Your task to perform on an android device: install app "Google Play Music" Image 0: 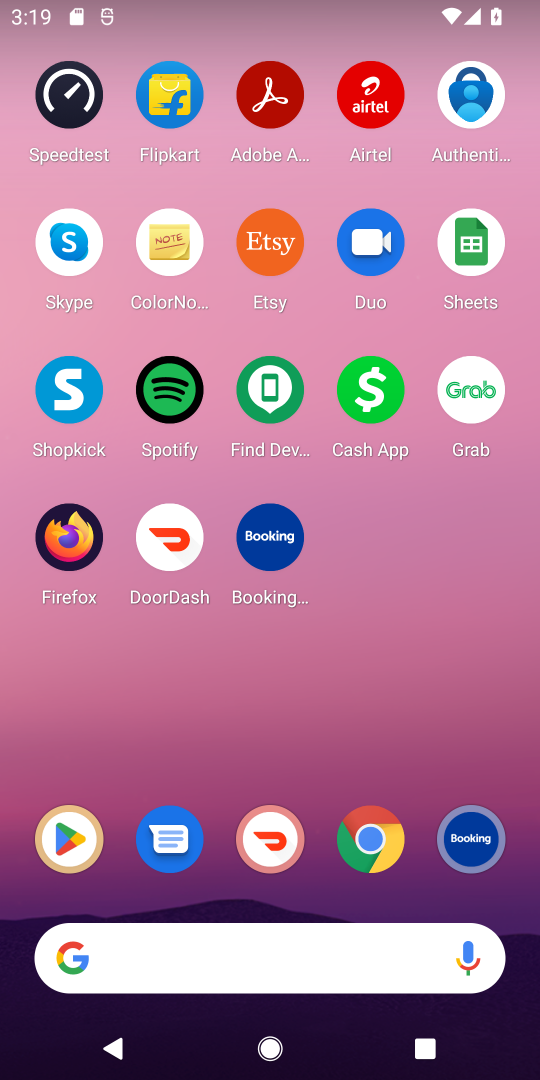
Step 0: drag from (318, 801) to (280, 387)
Your task to perform on an android device: install app "Google Play Music" Image 1: 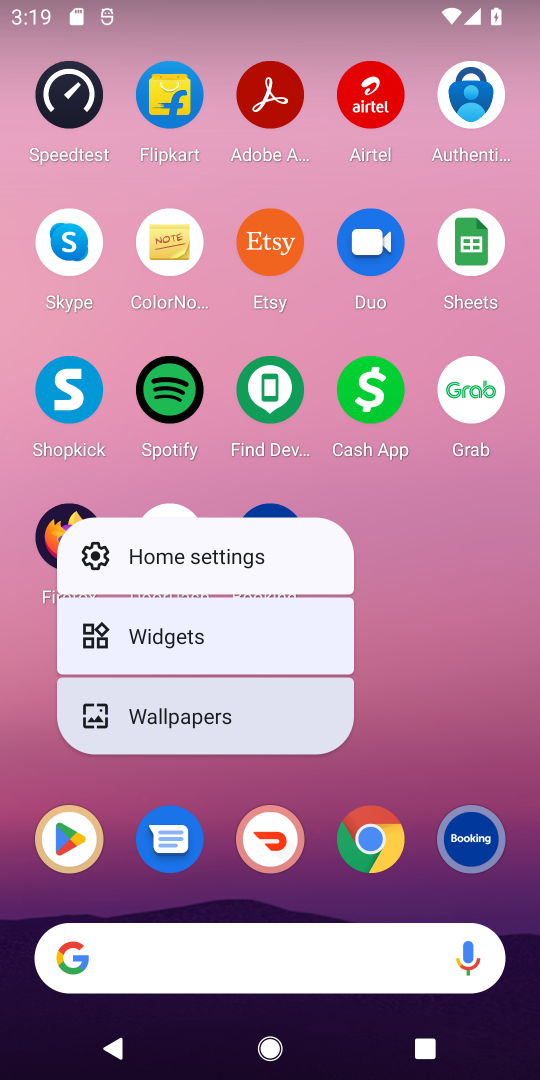
Step 1: click (420, 547)
Your task to perform on an android device: install app "Google Play Music" Image 2: 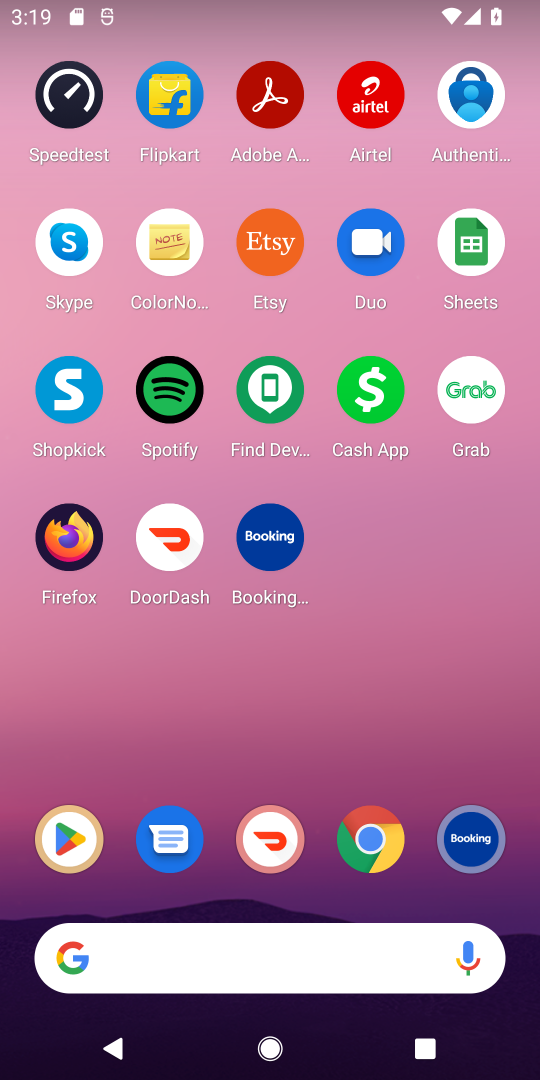
Step 2: drag from (224, 892) to (284, 153)
Your task to perform on an android device: install app "Google Play Music" Image 3: 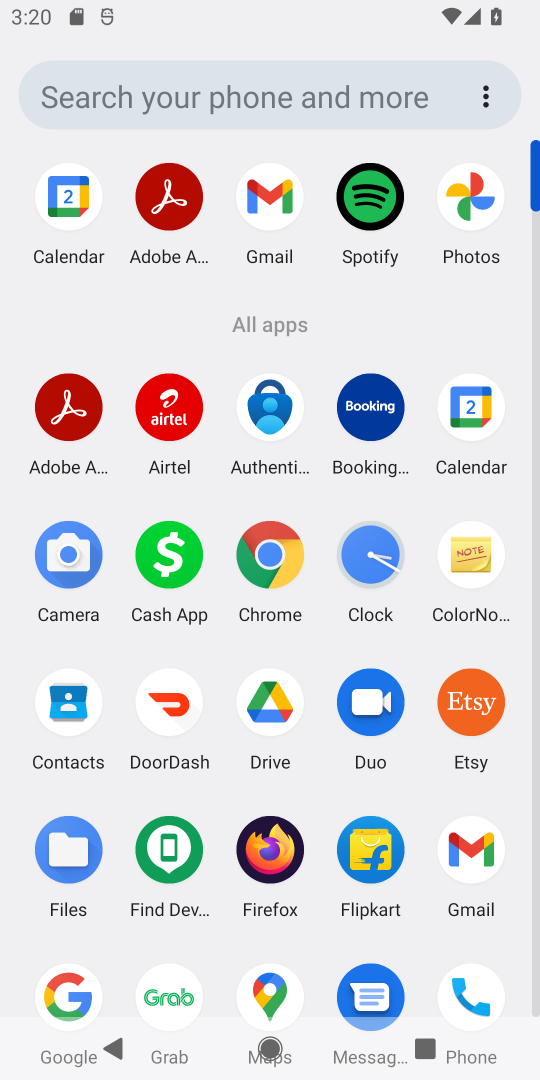
Step 3: click (136, 1037)
Your task to perform on an android device: install app "Google Play Music" Image 4: 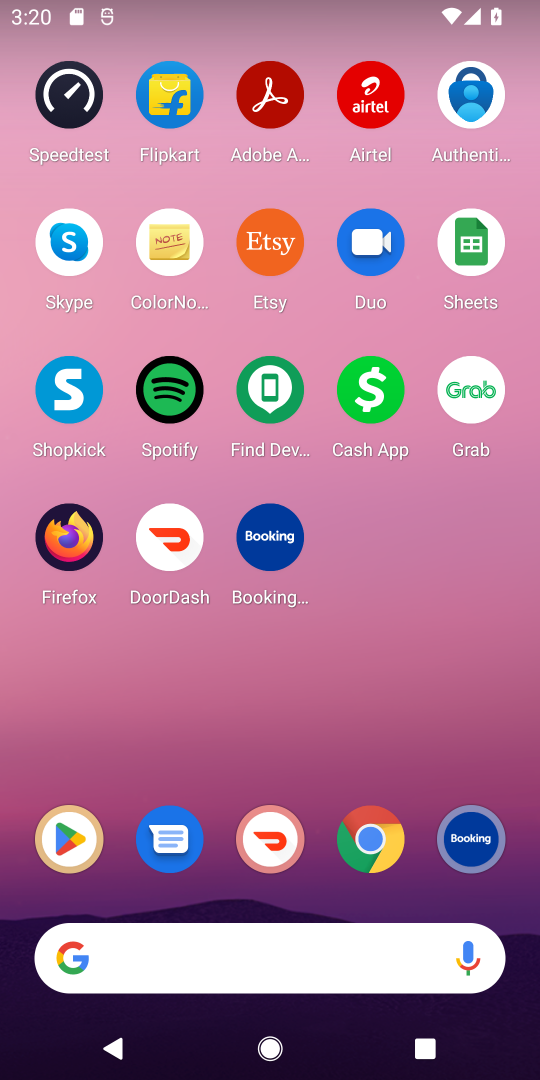
Step 4: click (68, 808)
Your task to perform on an android device: install app "Google Play Music" Image 5: 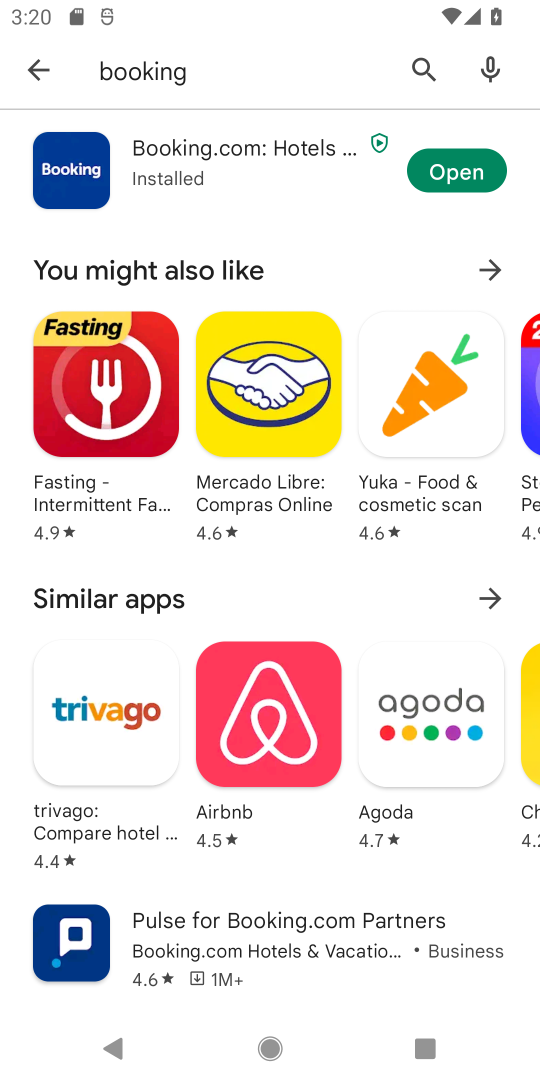
Step 5: click (438, 78)
Your task to perform on an android device: install app "Google Play Music" Image 6: 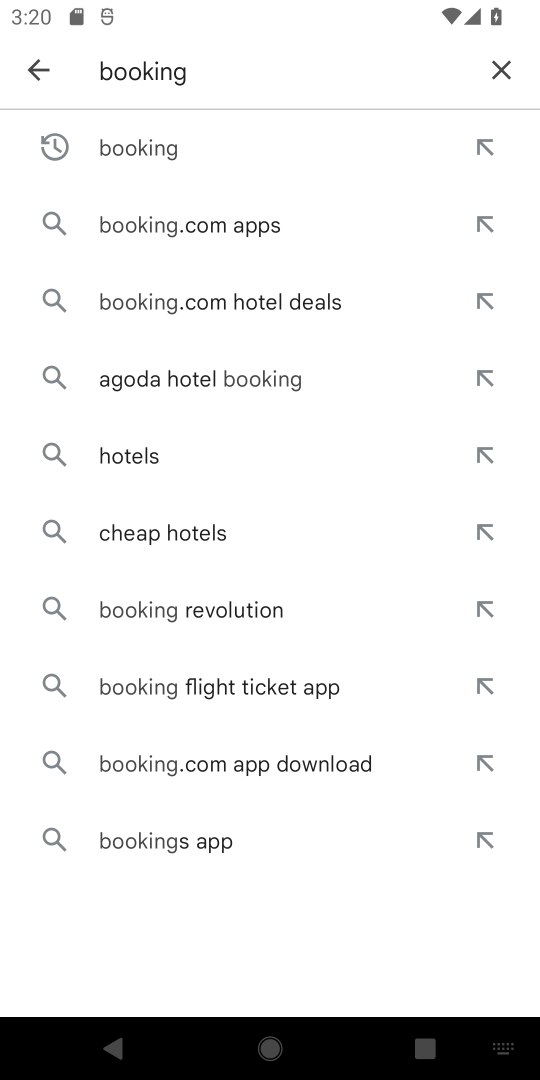
Step 6: click (498, 73)
Your task to perform on an android device: install app "Google Play Music" Image 7: 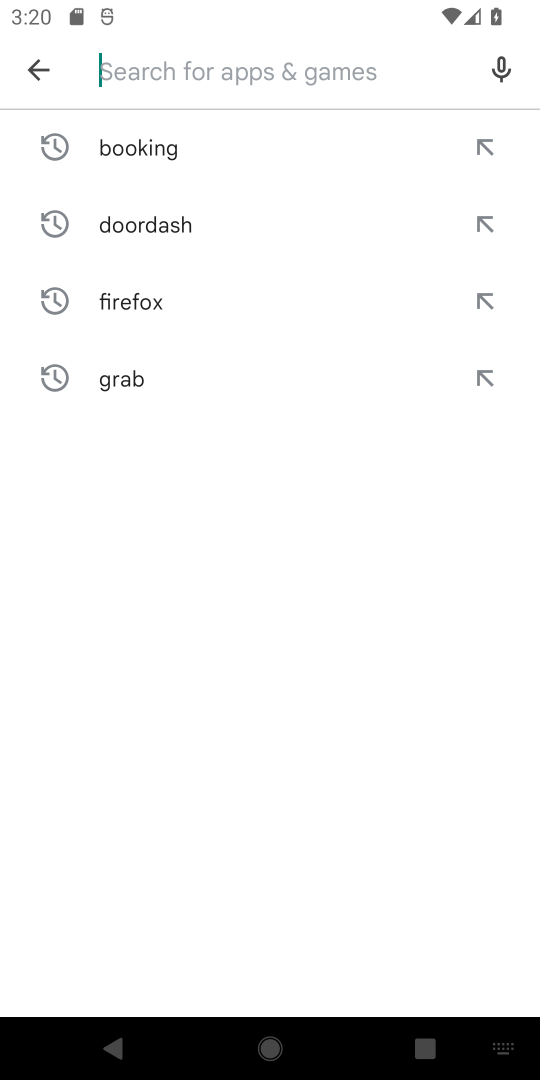
Step 7: type "google play music"
Your task to perform on an android device: install app "Google Play Music" Image 8: 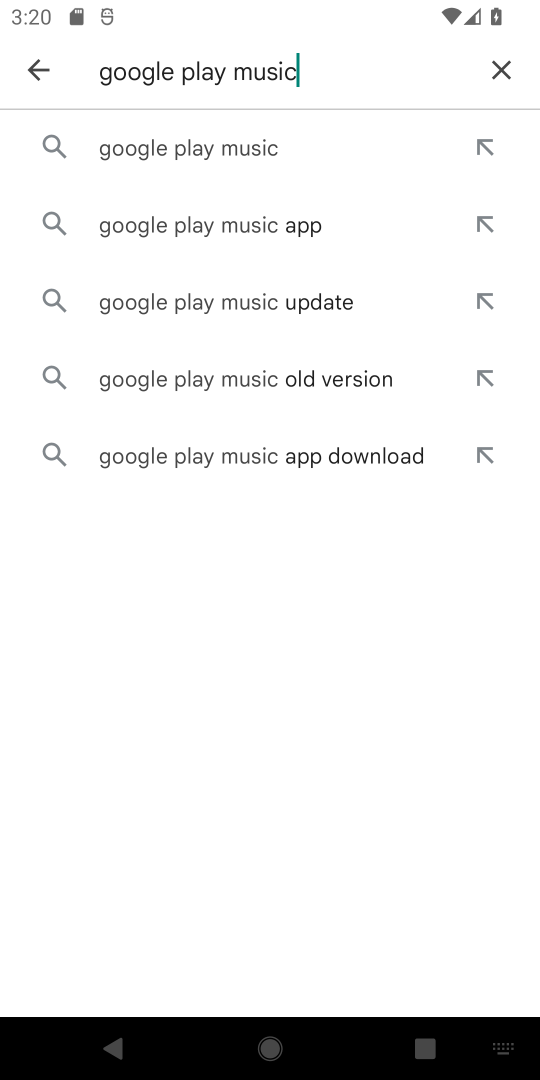
Step 8: click (271, 136)
Your task to perform on an android device: install app "Google Play Music" Image 9: 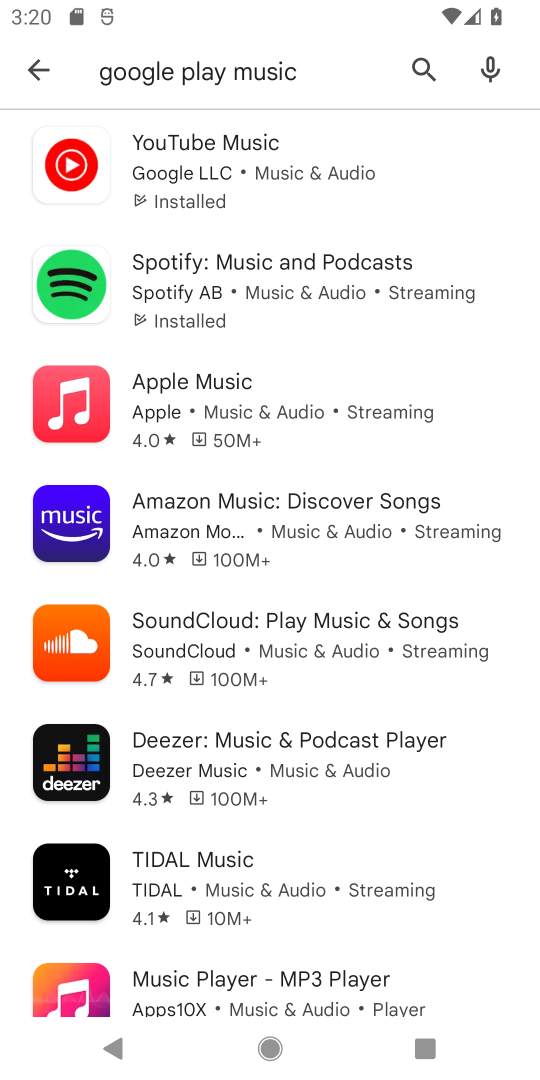
Step 9: click (326, 181)
Your task to perform on an android device: install app "Google Play Music" Image 10: 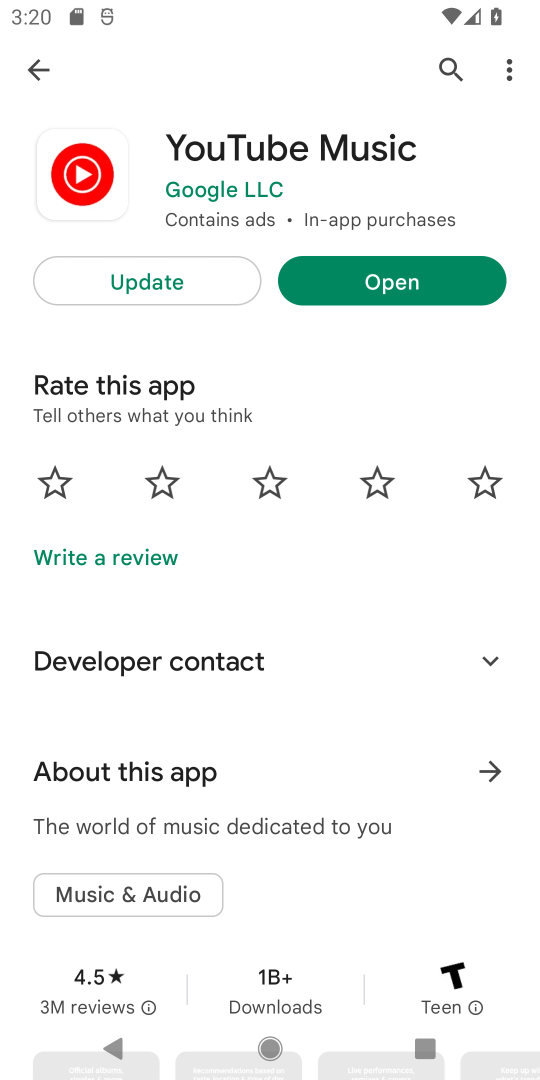
Step 10: click (421, 285)
Your task to perform on an android device: install app "Google Play Music" Image 11: 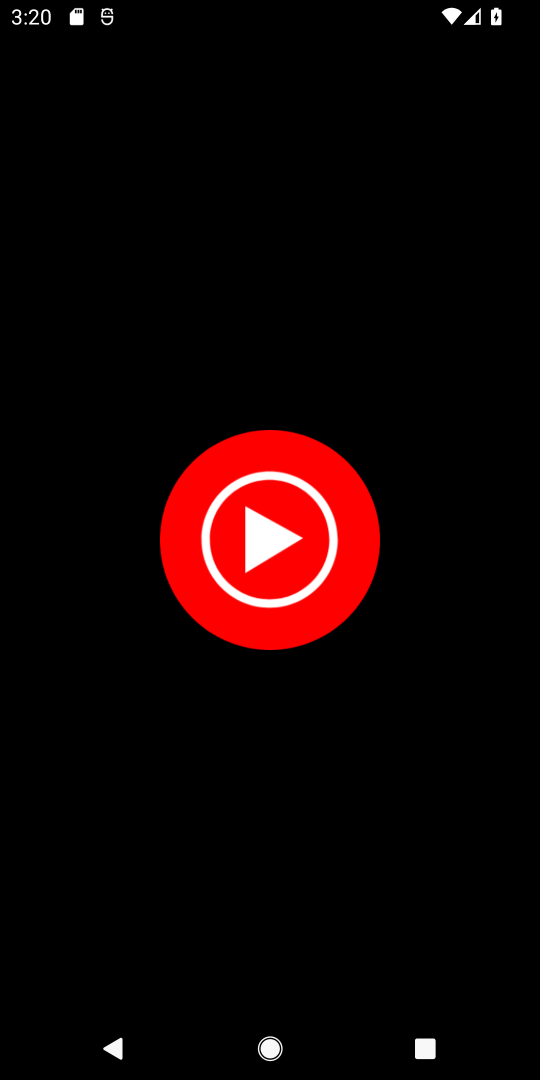
Step 11: task complete